Your task to perform on an android device: read, delete, or share a saved page in the chrome app Image 0: 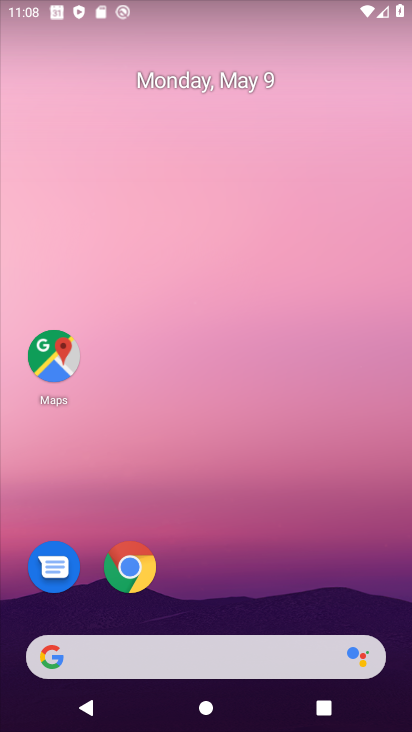
Step 0: drag from (381, 634) to (235, 53)
Your task to perform on an android device: read, delete, or share a saved page in the chrome app Image 1: 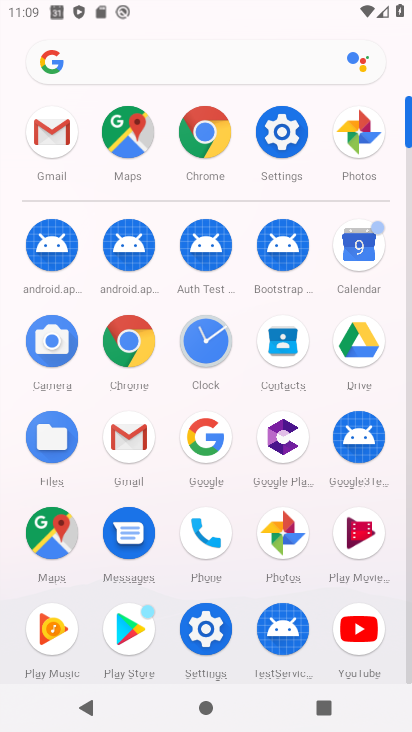
Step 1: click (212, 125)
Your task to perform on an android device: read, delete, or share a saved page in the chrome app Image 2: 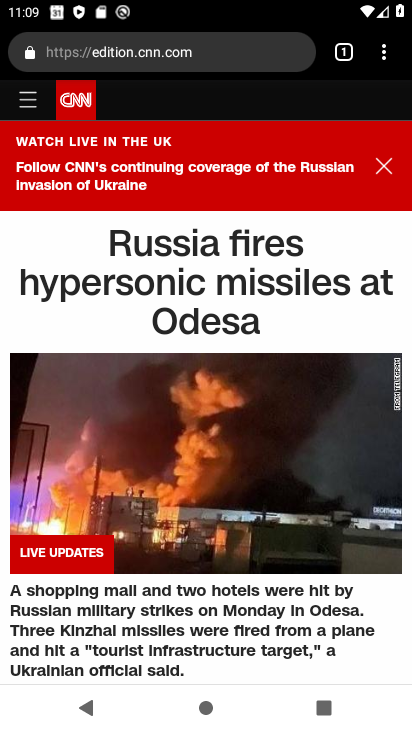
Step 2: task complete